Your task to perform on an android device: toggle priority inbox in the gmail app Image 0: 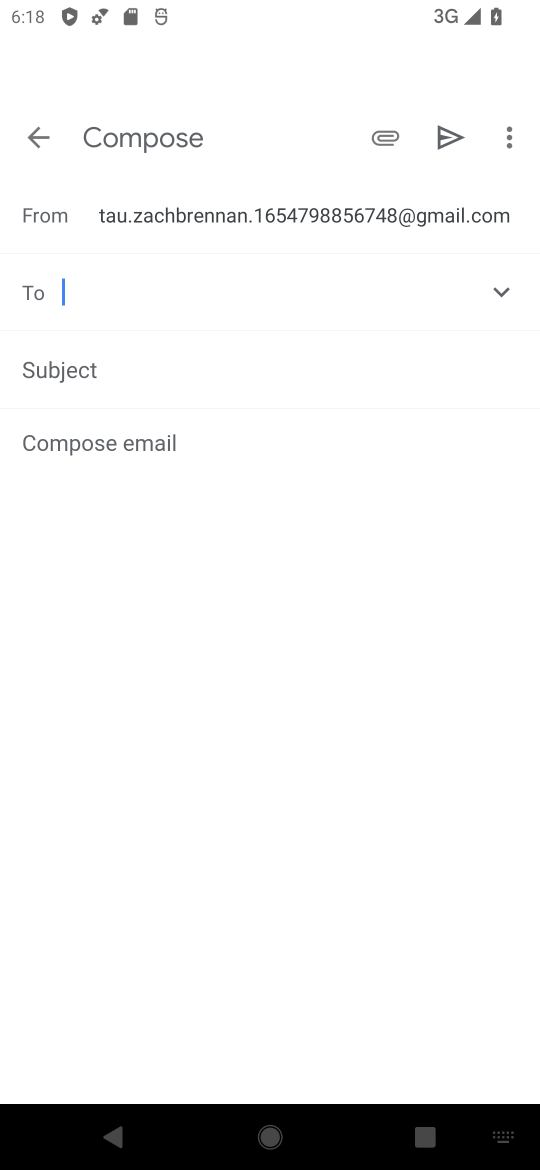
Step 0: press home button
Your task to perform on an android device: toggle priority inbox in the gmail app Image 1: 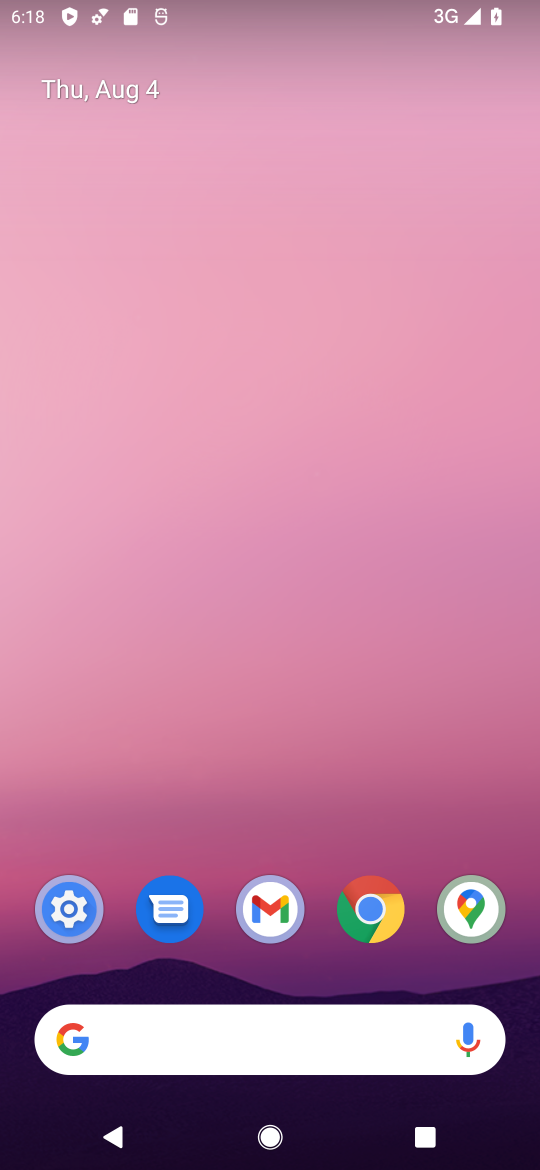
Step 1: drag from (346, 1004) to (324, 128)
Your task to perform on an android device: toggle priority inbox in the gmail app Image 2: 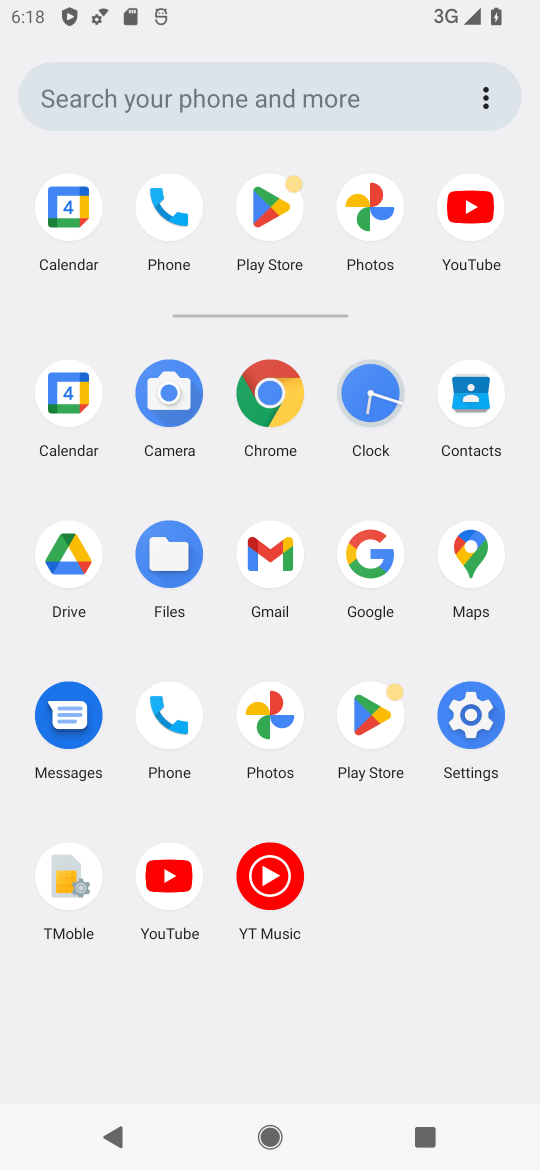
Step 2: click (267, 560)
Your task to perform on an android device: toggle priority inbox in the gmail app Image 3: 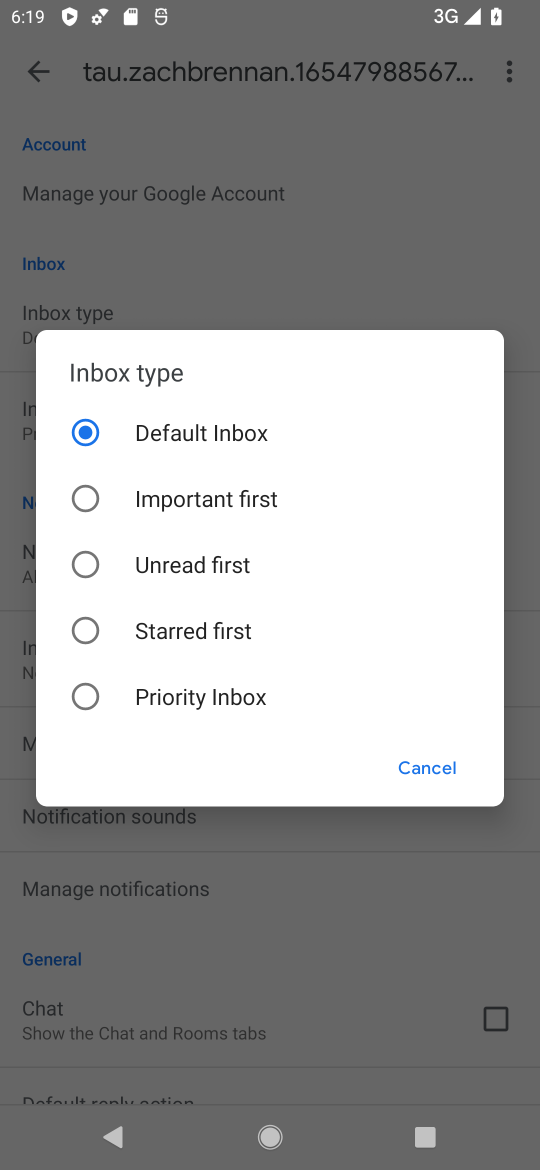
Step 3: click (185, 696)
Your task to perform on an android device: toggle priority inbox in the gmail app Image 4: 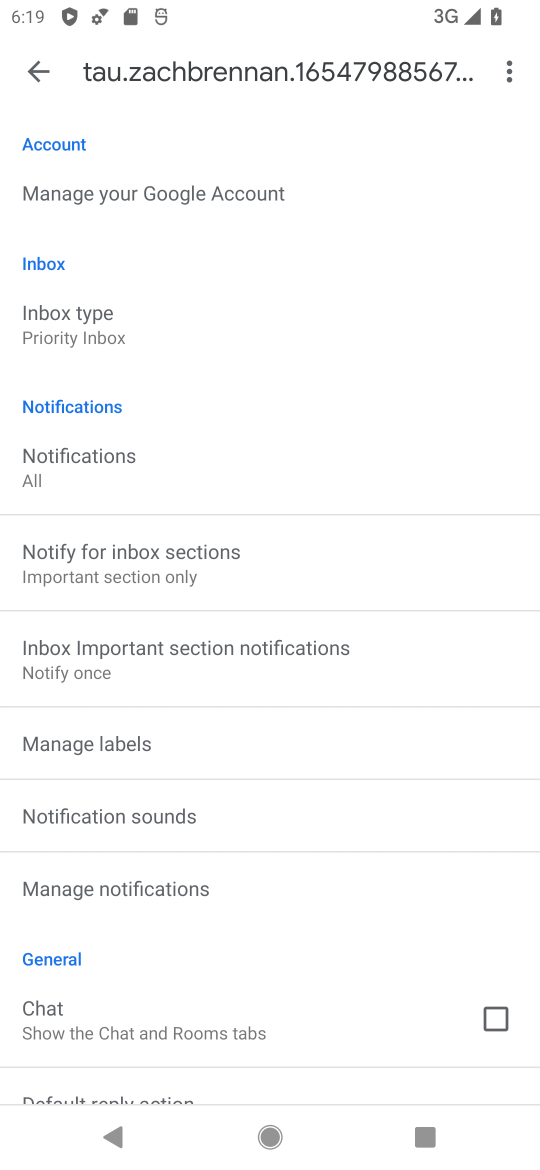
Step 4: task complete